Your task to perform on an android device: turn off javascript in the chrome app Image 0: 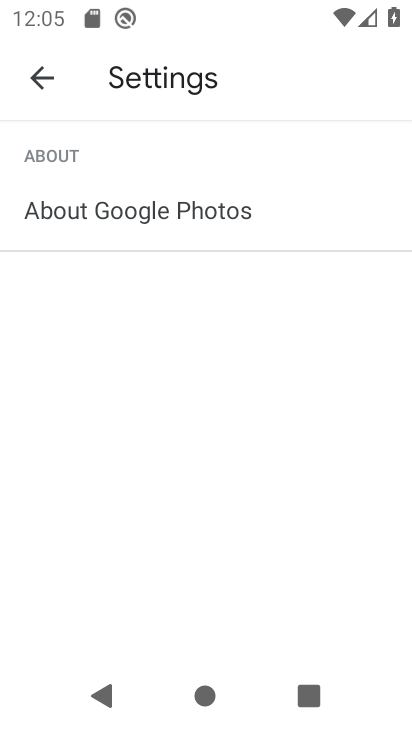
Step 0: press home button
Your task to perform on an android device: turn off javascript in the chrome app Image 1: 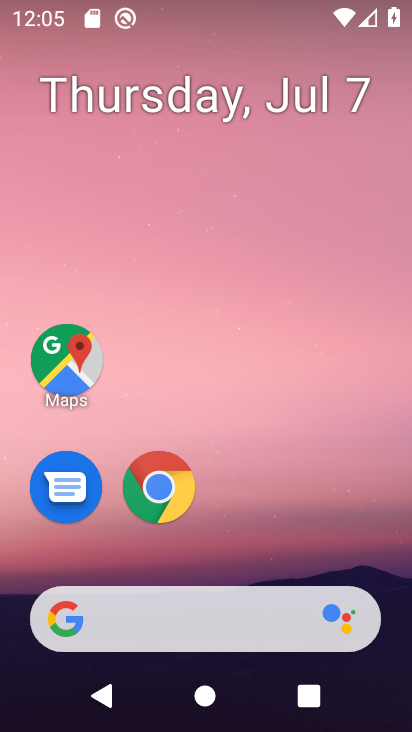
Step 1: drag from (364, 530) to (377, 178)
Your task to perform on an android device: turn off javascript in the chrome app Image 2: 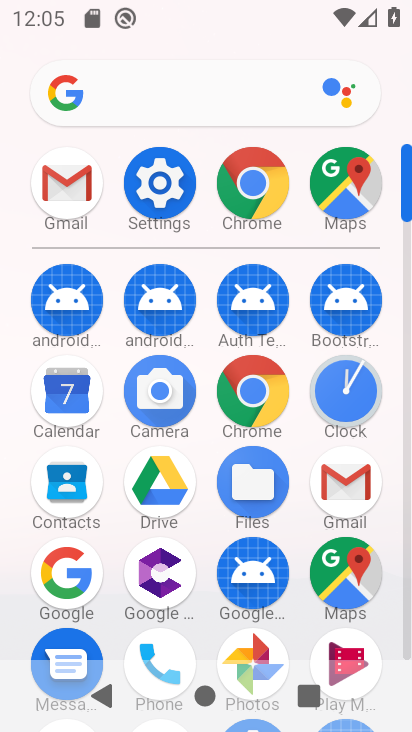
Step 2: click (274, 392)
Your task to perform on an android device: turn off javascript in the chrome app Image 3: 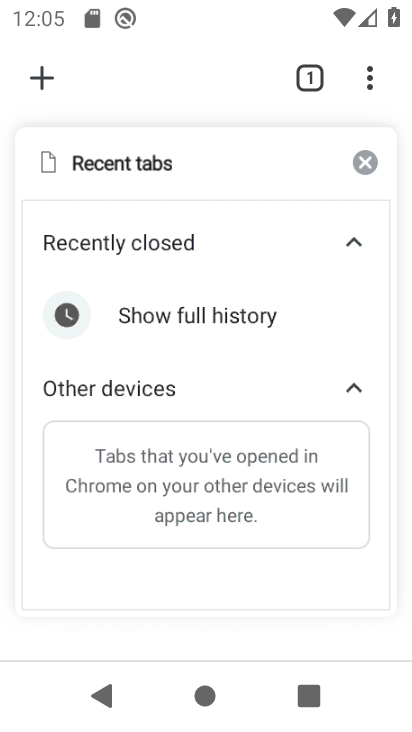
Step 3: click (372, 85)
Your task to perform on an android device: turn off javascript in the chrome app Image 4: 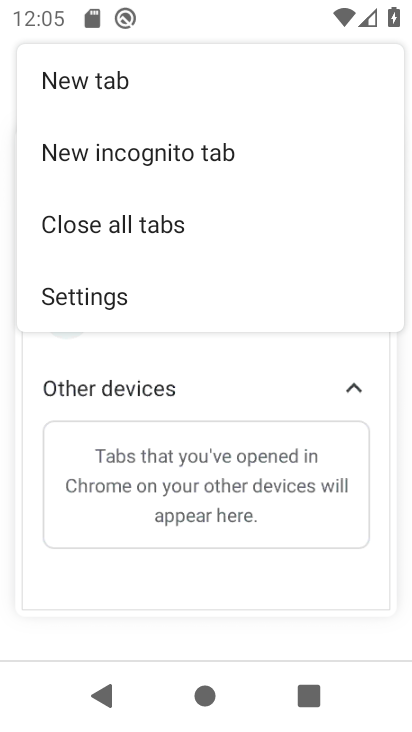
Step 4: click (129, 302)
Your task to perform on an android device: turn off javascript in the chrome app Image 5: 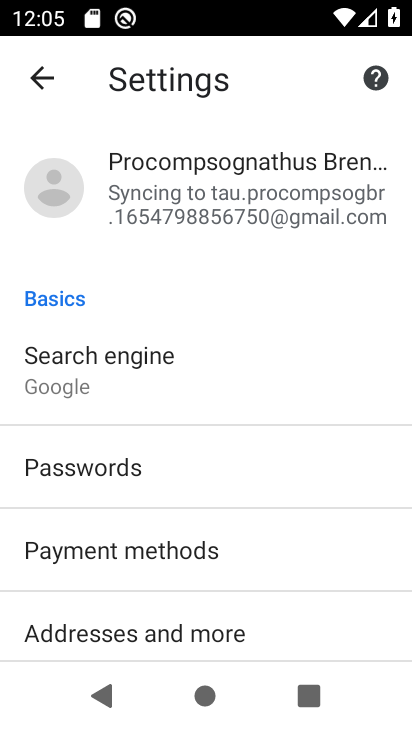
Step 5: drag from (309, 490) to (340, 352)
Your task to perform on an android device: turn off javascript in the chrome app Image 6: 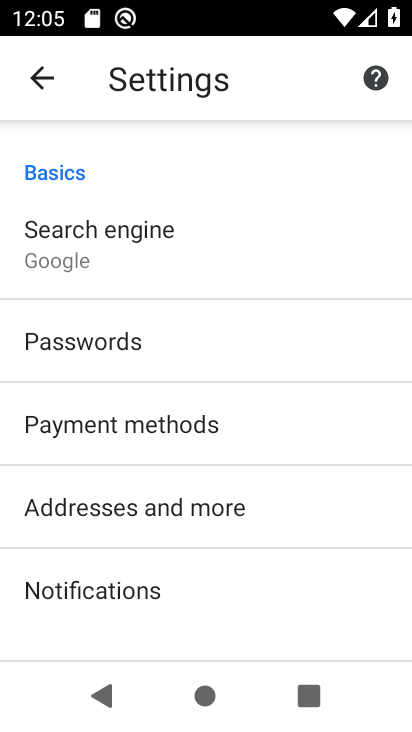
Step 6: drag from (339, 515) to (337, 383)
Your task to perform on an android device: turn off javascript in the chrome app Image 7: 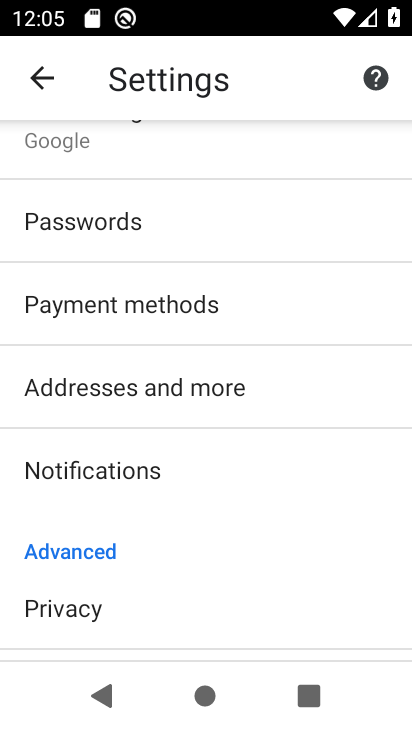
Step 7: drag from (344, 530) to (336, 375)
Your task to perform on an android device: turn off javascript in the chrome app Image 8: 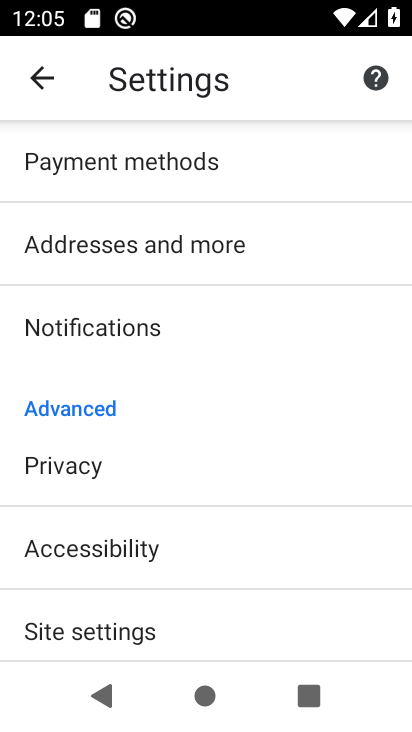
Step 8: drag from (323, 560) to (314, 388)
Your task to perform on an android device: turn off javascript in the chrome app Image 9: 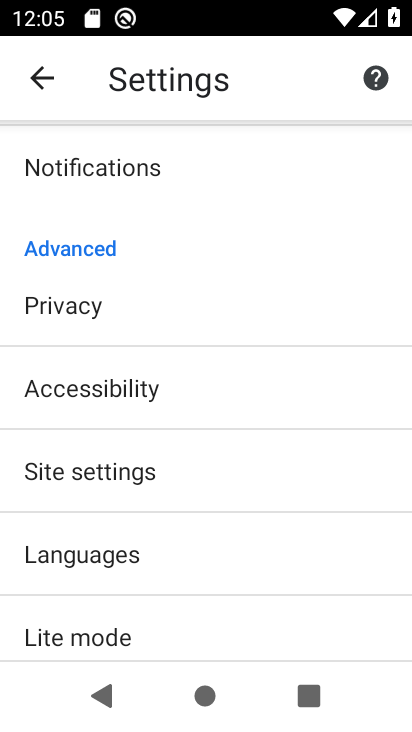
Step 9: drag from (324, 564) to (309, 407)
Your task to perform on an android device: turn off javascript in the chrome app Image 10: 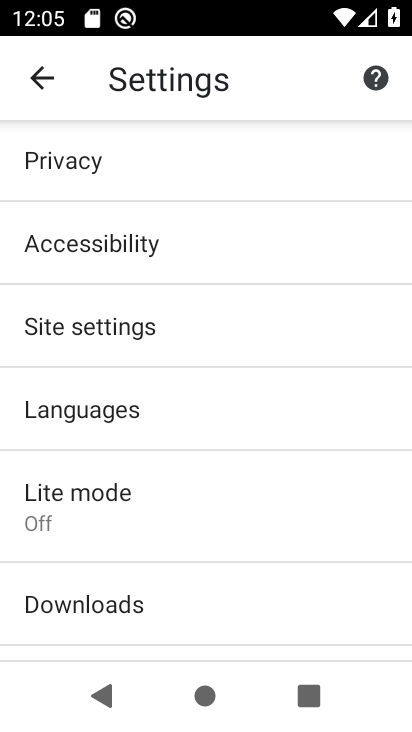
Step 10: drag from (312, 545) to (314, 377)
Your task to perform on an android device: turn off javascript in the chrome app Image 11: 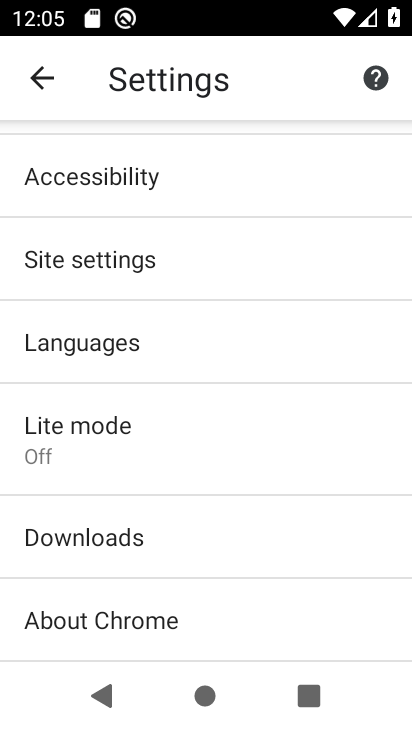
Step 11: click (221, 278)
Your task to perform on an android device: turn off javascript in the chrome app Image 12: 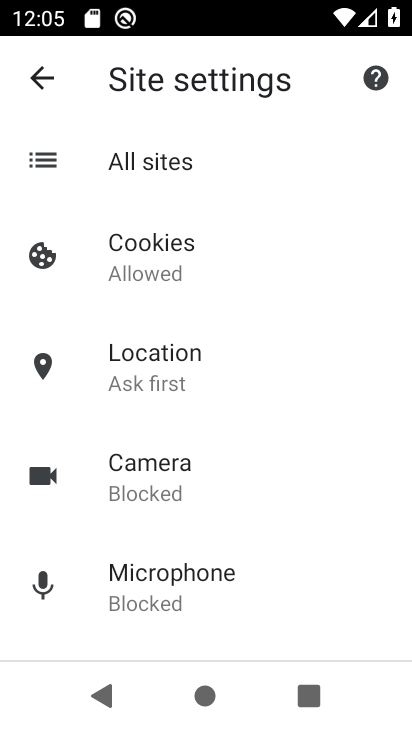
Step 12: drag from (310, 484) to (310, 370)
Your task to perform on an android device: turn off javascript in the chrome app Image 13: 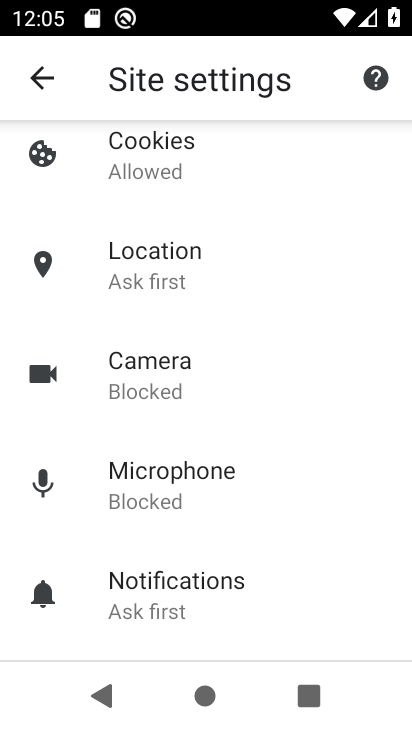
Step 13: drag from (318, 489) to (329, 360)
Your task to perform on an android device: turn off javascript in the chrome app Image 14: 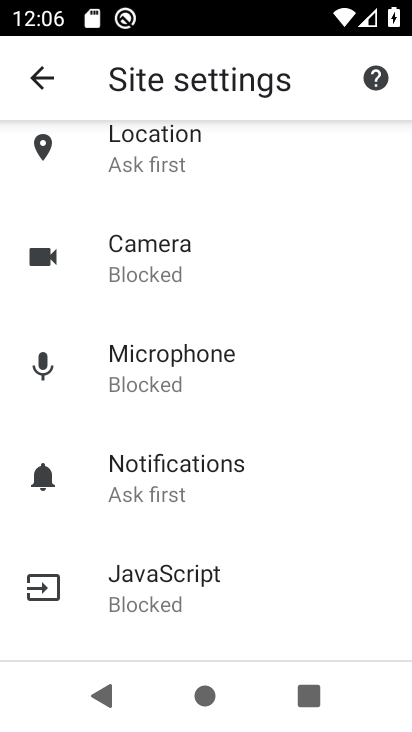
Step 14: drag from (331, 511) to (312, 360)
Your task to perform on an android device: turn off javascript in the chrome app Image 15: 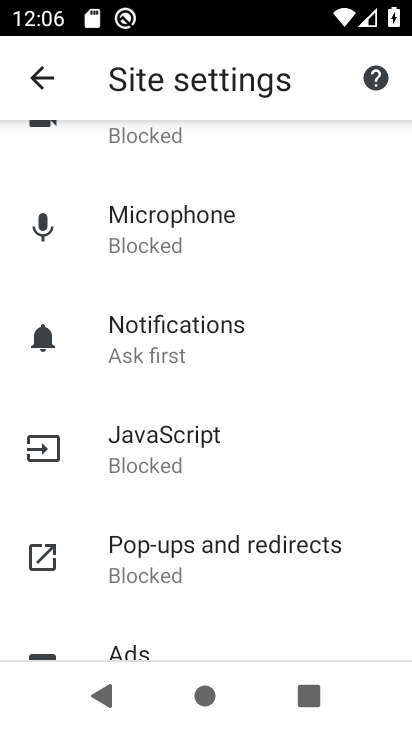
Step 15: drag from (311, 589) to (303, 426)
Your task to perform on an android device: turn off javascript in the chrome app Image 16: 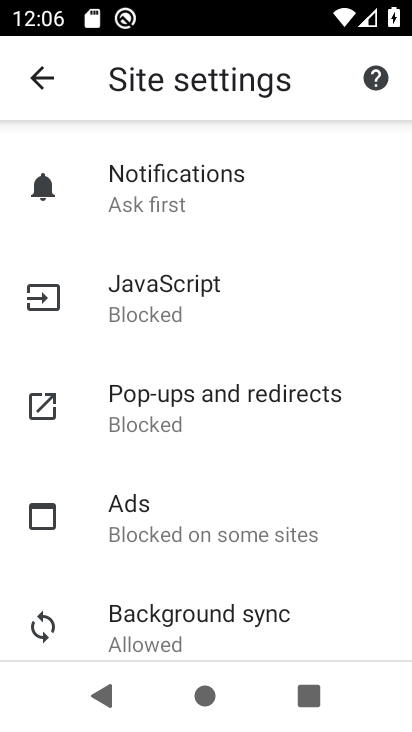
Step 16: click (222, 312)
Your task to perform on an android device: turn off javascript in the chrome app Image 17: 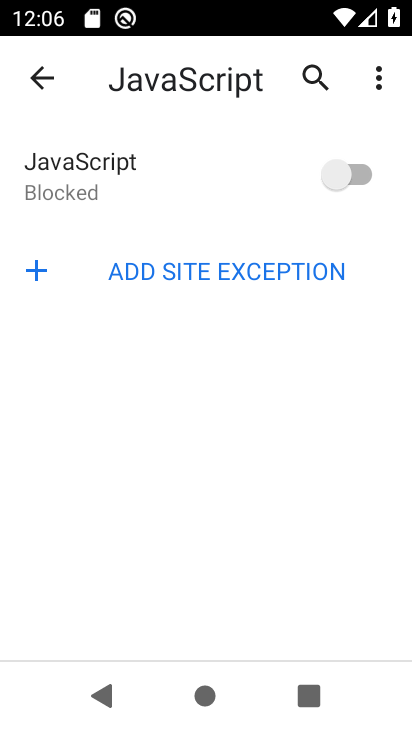
Step 17: task complete